Your task to perform on an android device: turn off javascript in the chrome app Image 0: 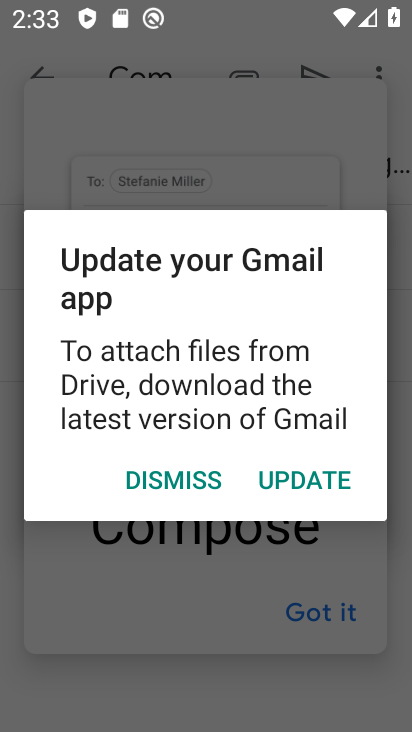
Step 0: press home button
Your task to perform on an android device: turn off javascript in the chrome app Image 1: 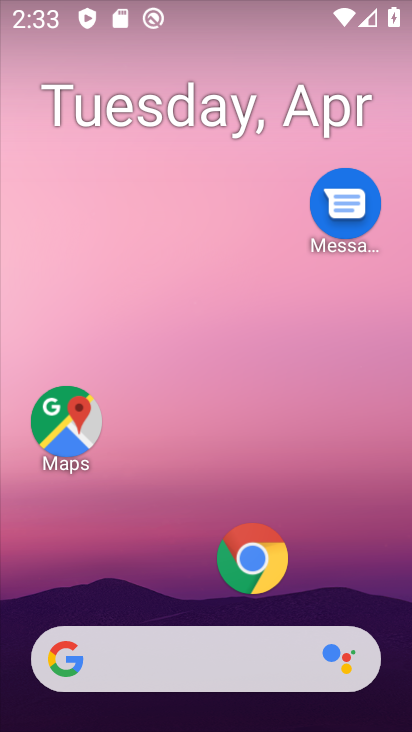
Step 1: click (238, 561)
Your task to perform on an android device: turn off javascript in the chrome app Image 2: 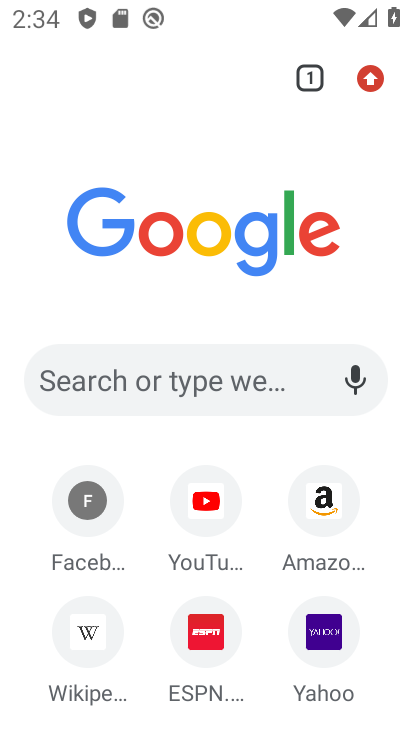
Step 2: click (360, 79)
Your task to perform on an android device: turn off javascript in the chrome app Image 3: 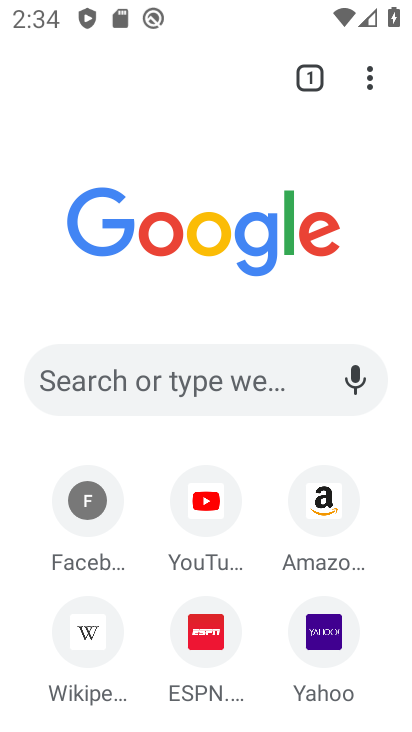
Step 3: drag from (363, 76) to (184, 634)
Your task to perform on an android device: turn off javascript in the chrome app Image 4: 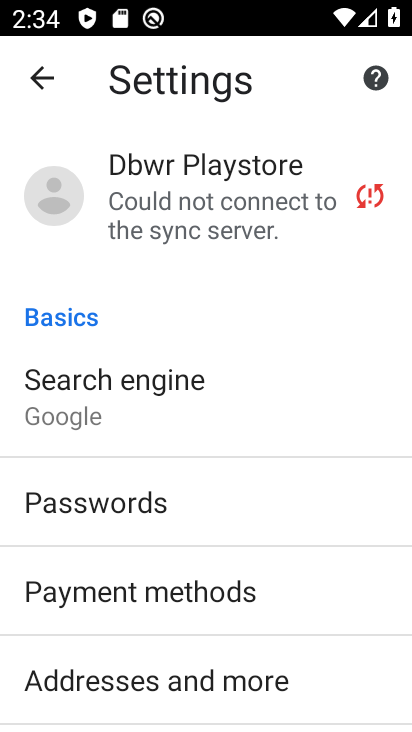
Step 4: drag from (169, 628) to (133, 67)
Your task to perform on an android device: turn off javascript in the chrome app Image 5: 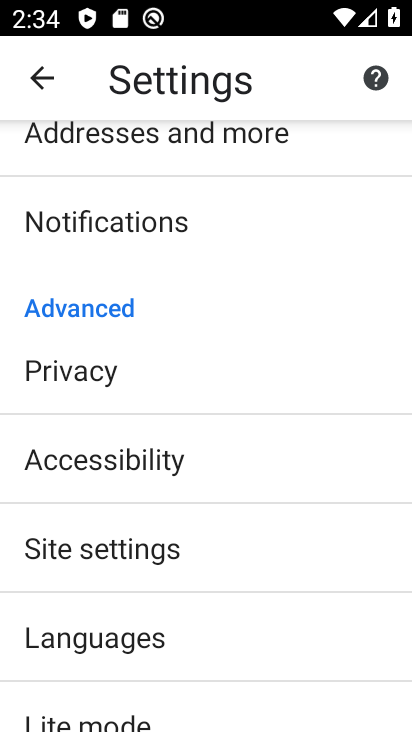
Step 5: drag from (105, 689) to (86, 234)
Your task to perform on an android device: turn off javascript in the chrome app Image 6: 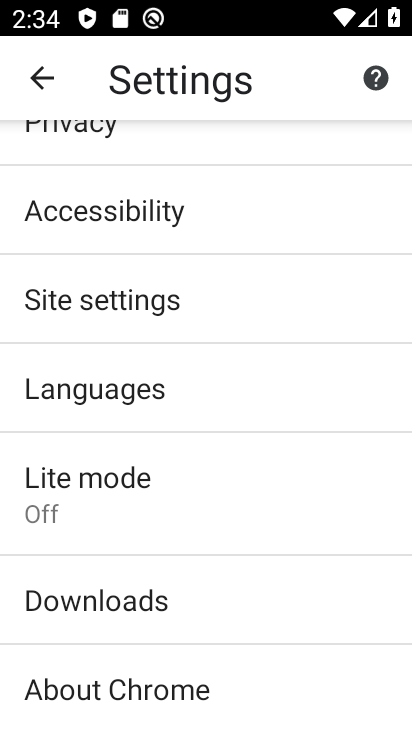
Step 6: click (91, 308)
Your task to perform on an android device: turn off javascript in the chrome app Image 7: 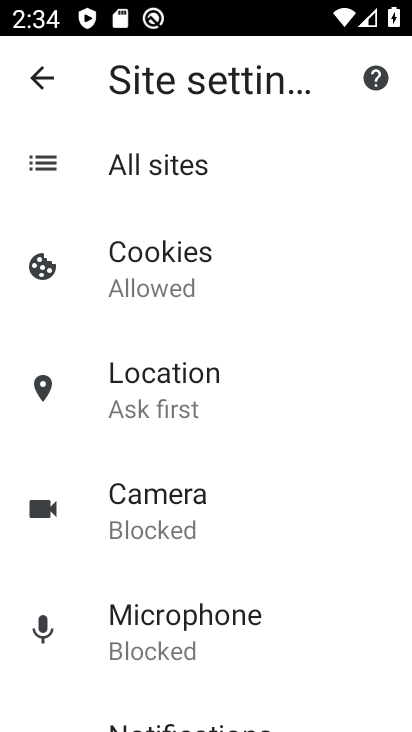
Step 7: drag from (202, 598) to (183, 141)
Your task to perform on an android device: turn off javascript in the chrome app Image 8: 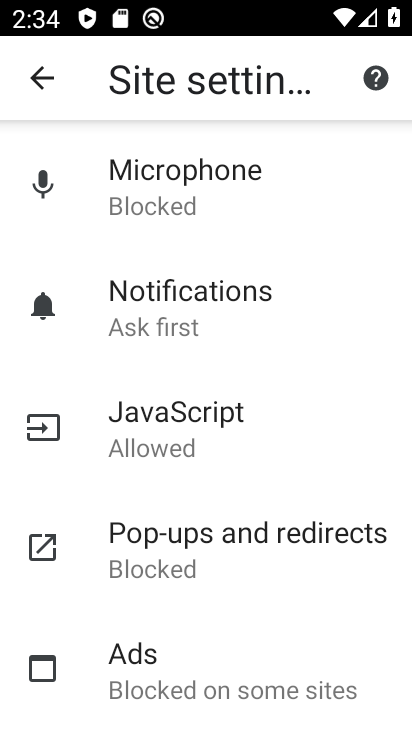
Step 8: click (172, 443)
Your task to perform on an android device: turn off javascript in the chrome app Image 9: 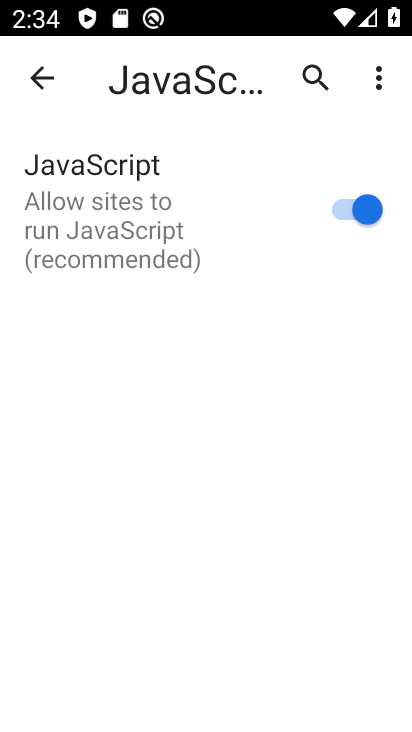
Step 9: click (346, 197)
Your task to perform on an android device: turn off javascript in the chrome app Image 10: 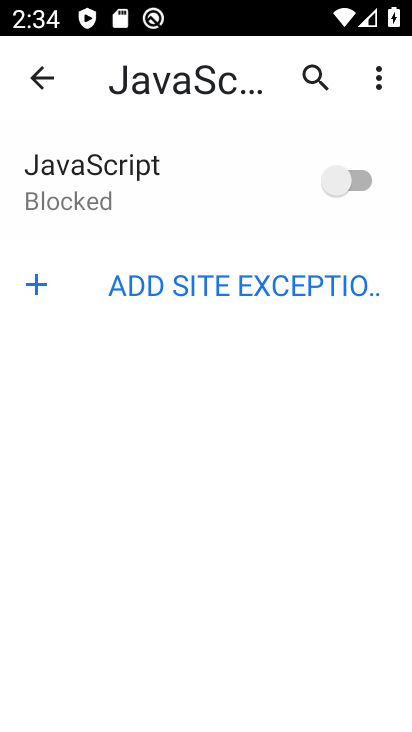
Step 10: task complete